Your task to perform on an android device: uninstall "Walmart Shopping & Grocery" Image 0: 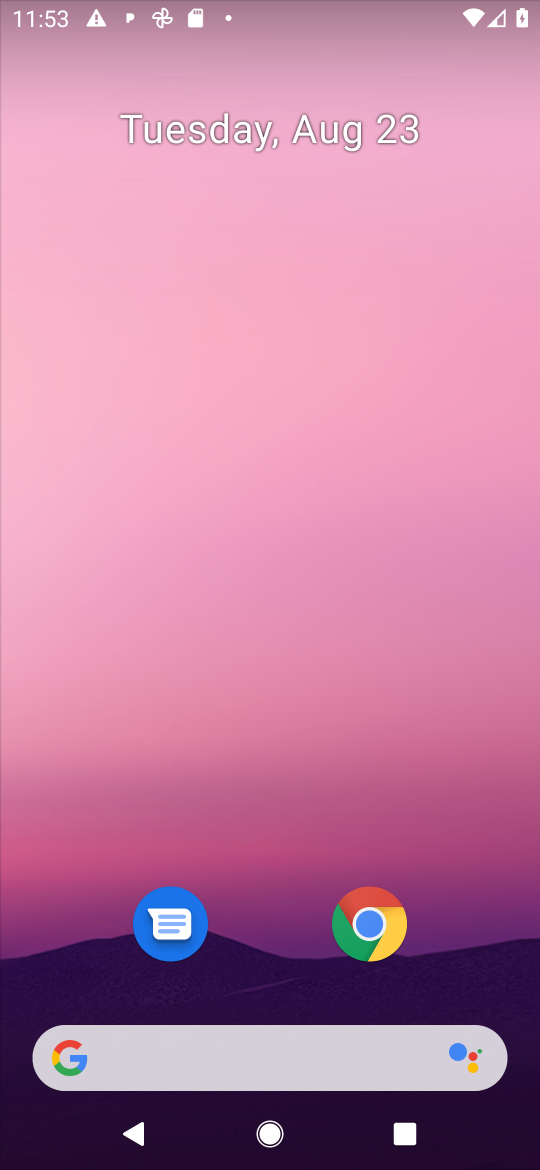
Step 0: drag from (453, 957) to (458, 106)
Your task to perform on an android device: uninstall "Walmart Shopping & Grocery" Image 1: 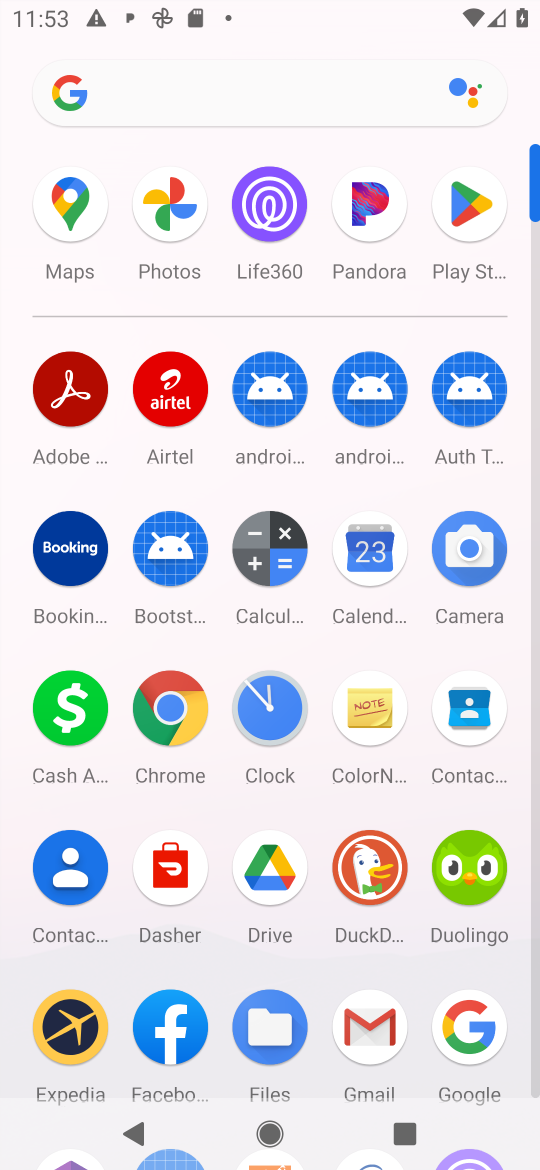
Step 1: click (479, 208)
Your task to perform on an android device: uninstall "Walmart Shopping & Grocery" Image 2: 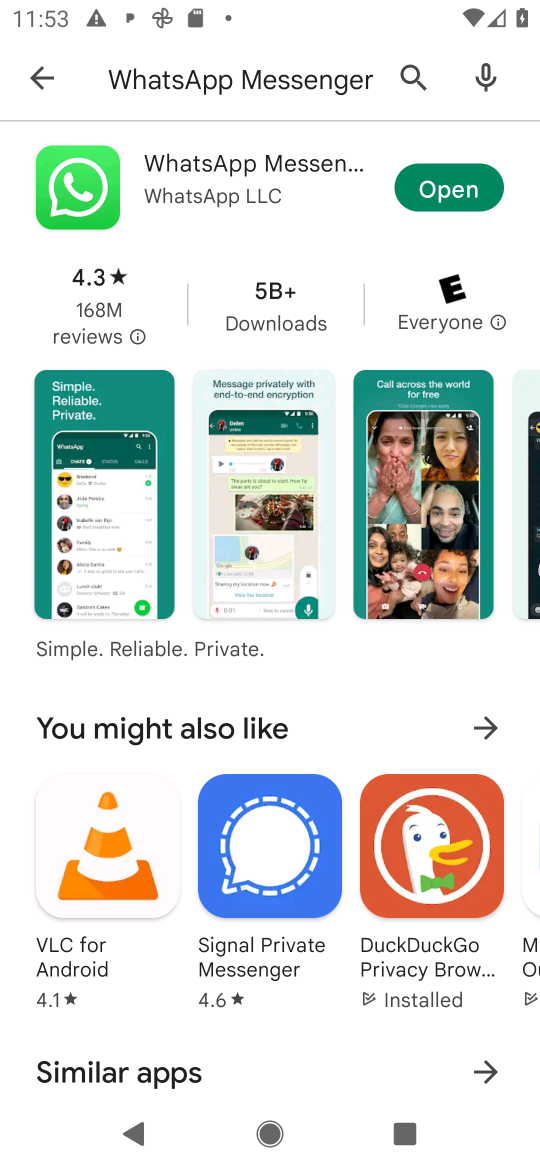
Step 2: press back button
Your task to perform on an android device: uninstall "Walmart Shopping & Grocery" Image 3: 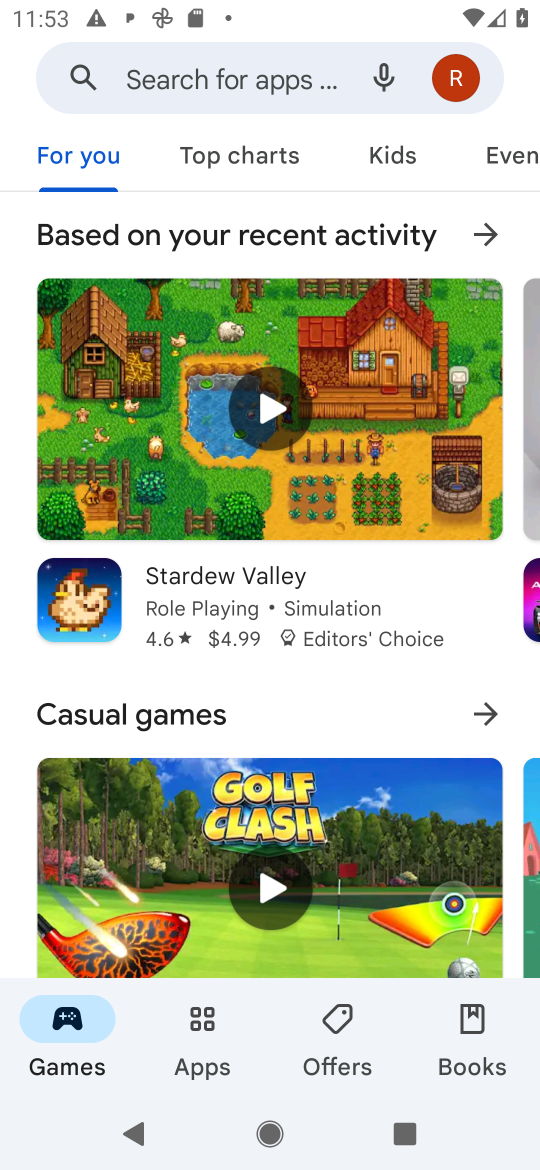
Step 3: click (271, 74)
Your task to perform on an android device: uninstall "Walmart Shopping & Grocery" Image 4: 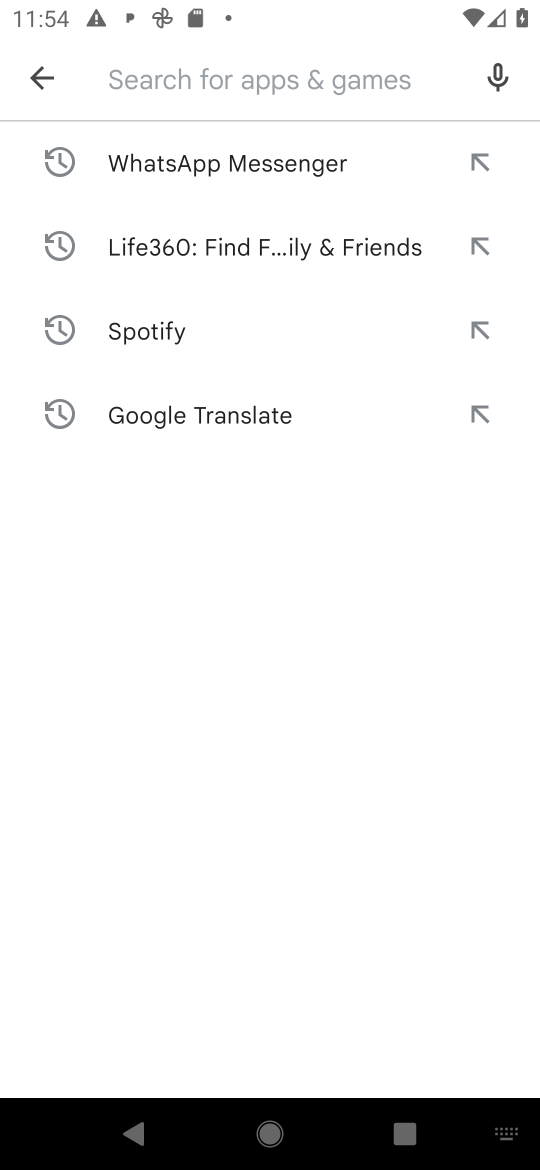
Step 4: type "Walmart Shopping & Grocery"
Your task to perform on an android device: uninstall "Walmart Shopping & Grocery" Image 5: 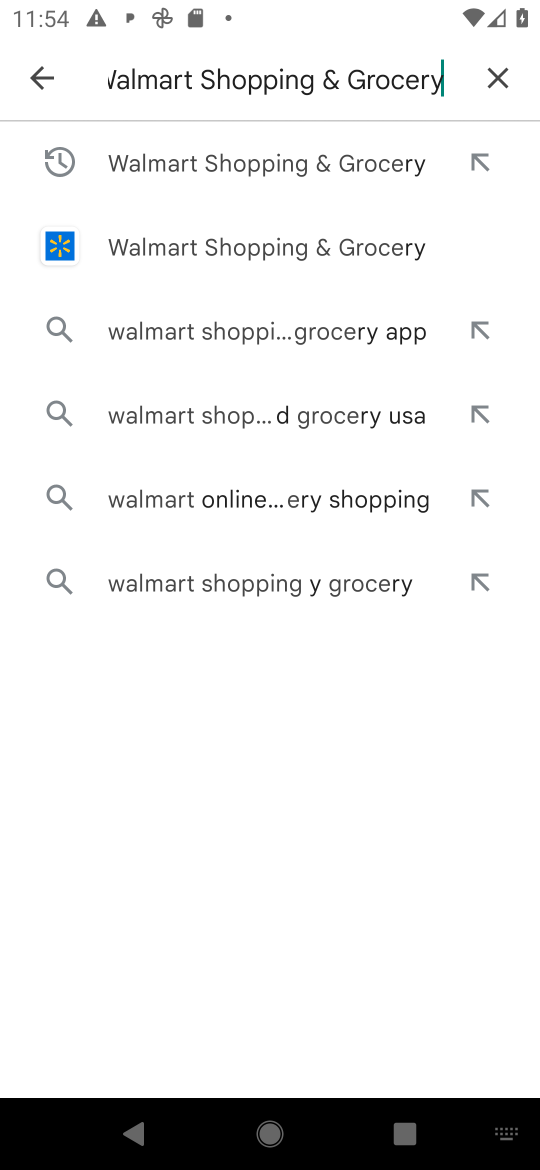
Step 5: press enter
Your task to perform on an android device: uninstall "Walmart Shopping & Grocery" Image 6: 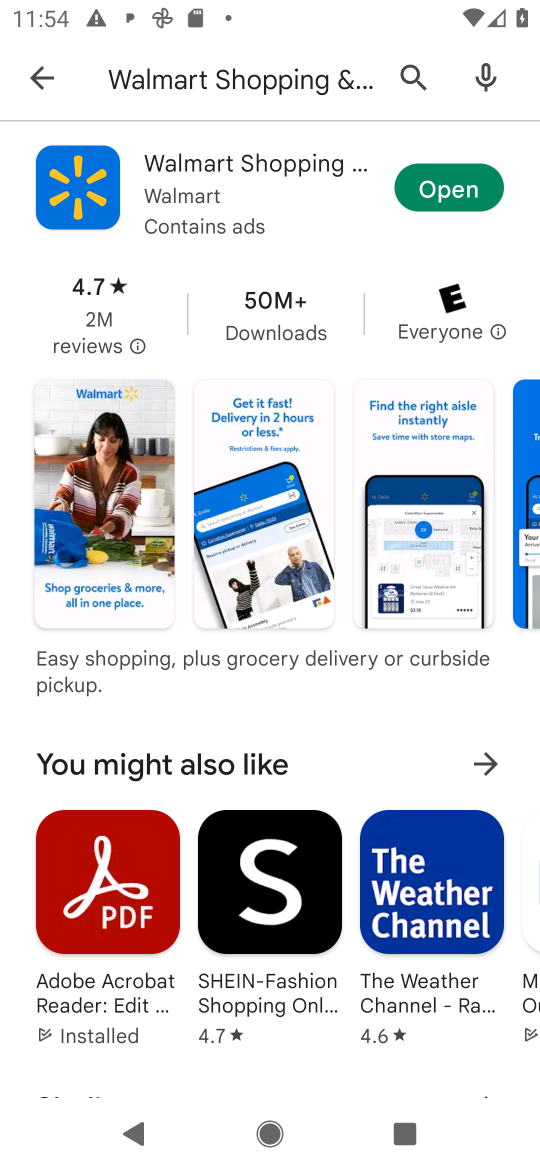
Step 6: task complete